Your task to perform on an android device: Open display settings Image 0: 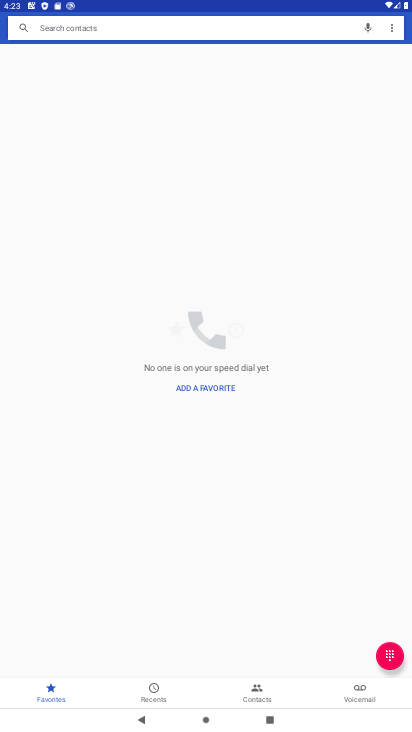
Step 0: press home button
Your task to perform on an android device: Open display settings Image 1: 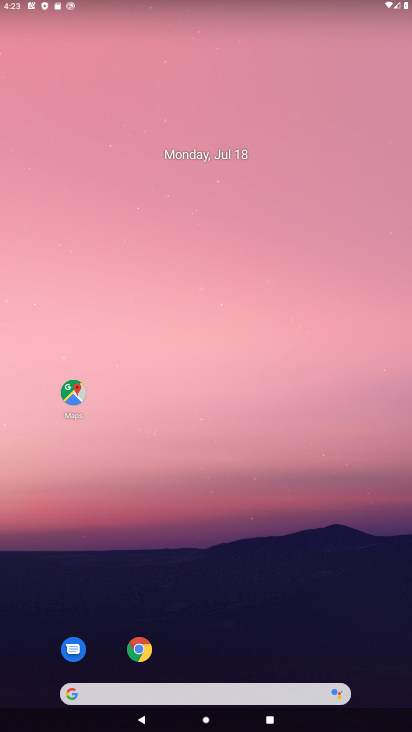
Step 1: drag from (203, 672) to (242, 233)
Your task to perform on an android device: Open display settings Image 2: 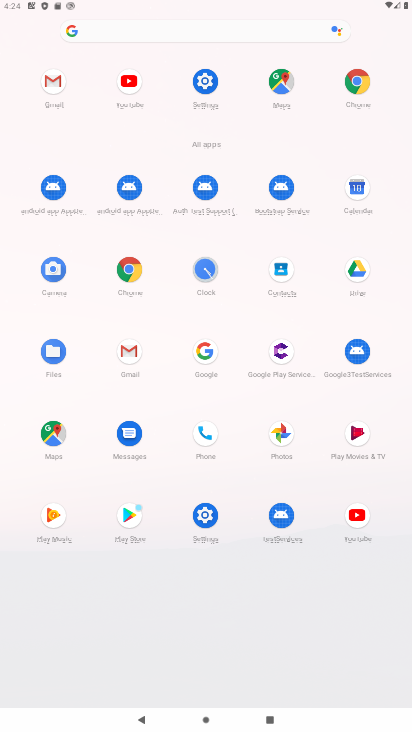
Step 2: click (192, 82)
Your task to perform on an android device: Open display settings Image 3: 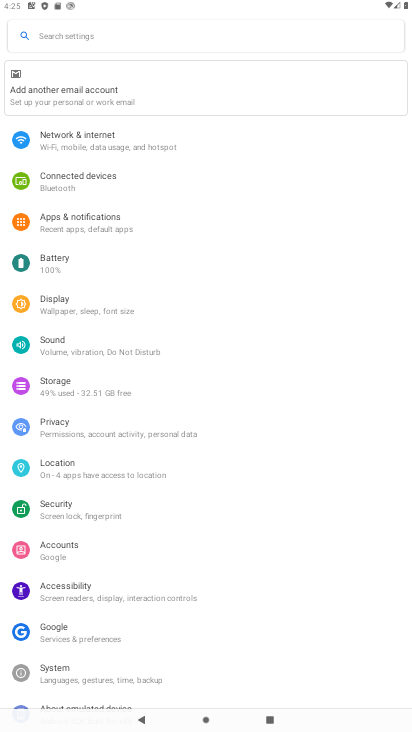
Step 3: click (110, 314)
Your task to perform on an android device: Open display settings Image 4: 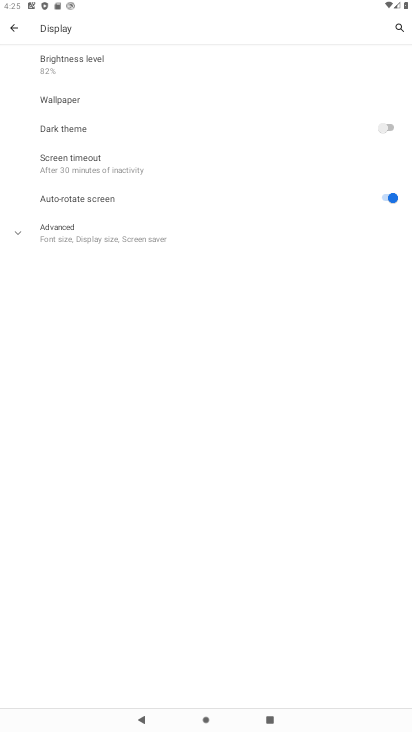
Step 4: task complete